Your task to perform on an android device: Search for hotels in Denver Image 0: 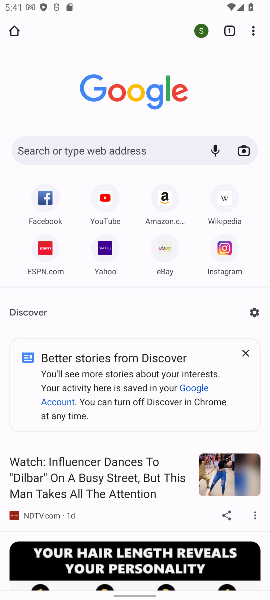
Step 0: click (166, 155)
Your task to perform on an android device: Search for hotels in Denver Image 1: 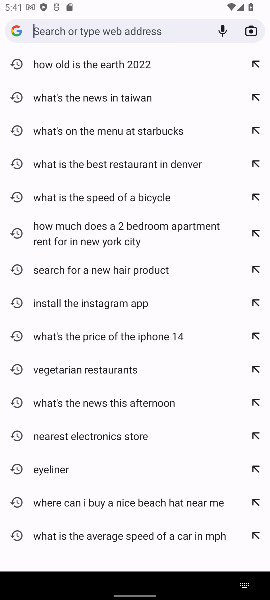
Step 1: type "hotels in Denver"
Your task to perform on an android device: Search for hotels in Denver Image 2: 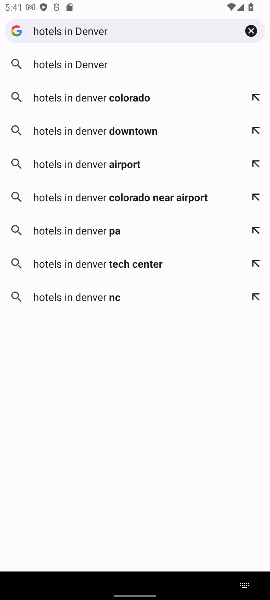
Step 2: click (101, 64)
Your task to perform on an android device: Search for hotels in Denver Image 3: 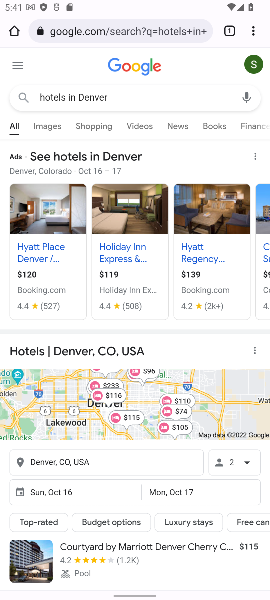
Step 3: task complete